Your task to perform on an android device: Go to Reddit.com Image 0: 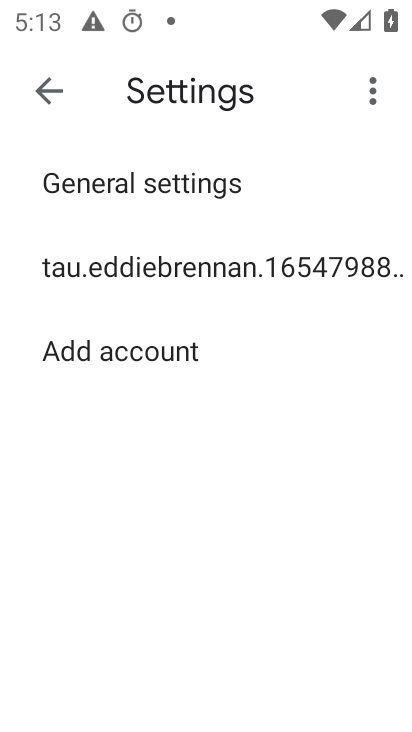
Step 0: press home button
Your task to perform on an android device: Go to Reddit.com Image 1: 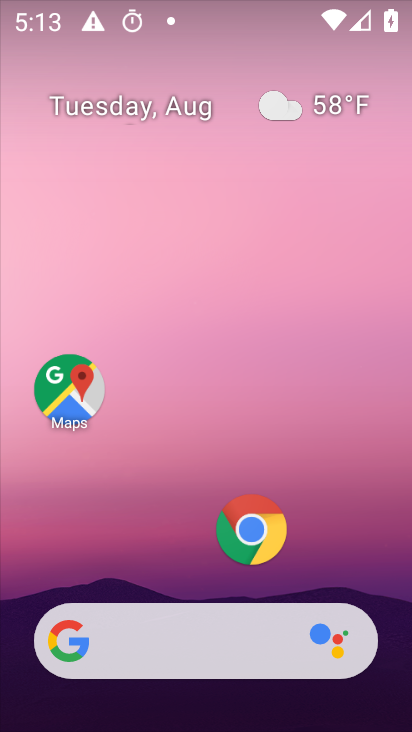
Step 1: click (242, 525)
Your task to perform on an android device: Go to Reddit.com Image 2: 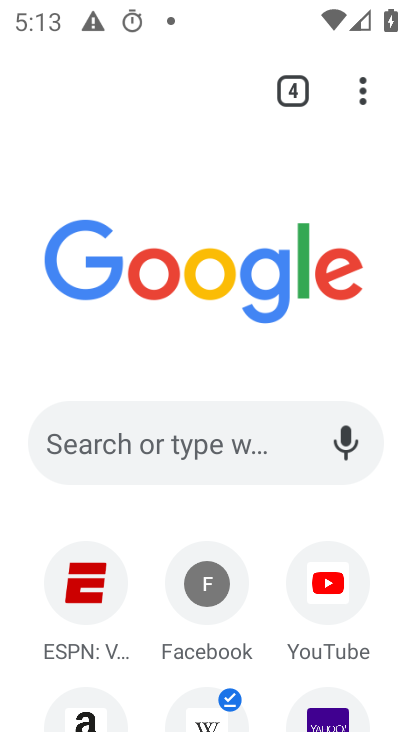
Step 2: click (129, 454)
Your task to perform on an android device: Go to Reddit.com Image 3: 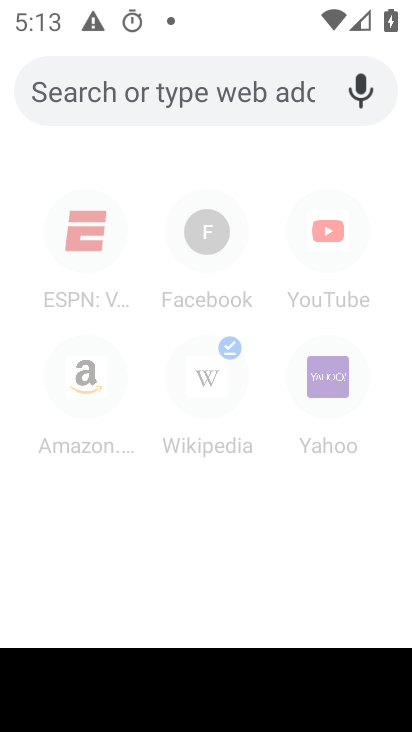
Step 3: type "Reddit.com"
Your task to perform on an android device: Go to Reddit.com Image 4: 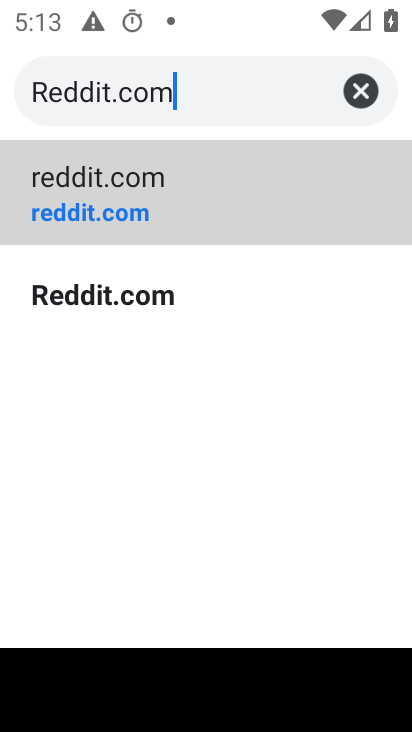
Step 4: type ""
Your task to perform on an android device: Go to Reddit.com Image 5: 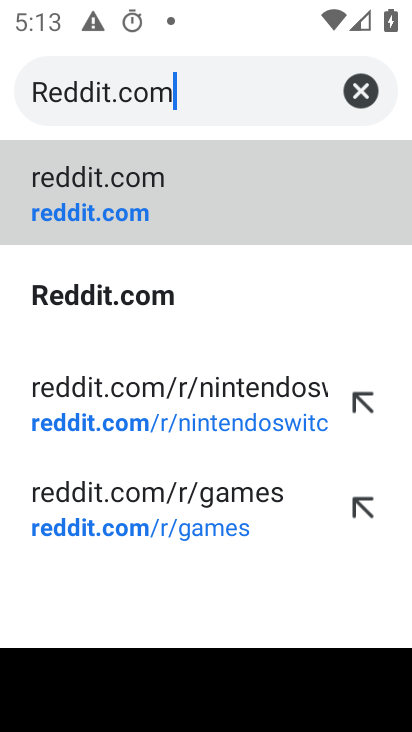
Step 5: click (162, 219)
Your task to perform on an android device: Go to Reddit.com Image 6: 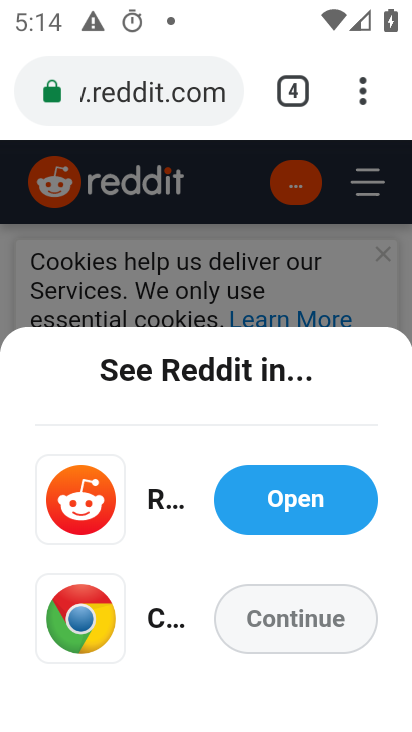
Step 6: task complete